Your task to perform on an android device: turn off airplane mode Image 0: 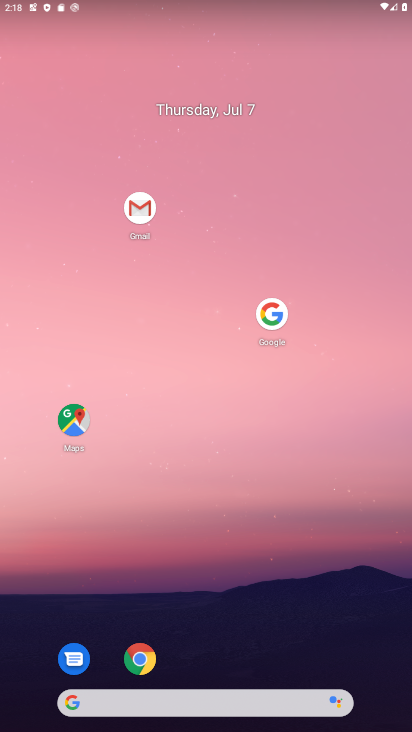
Step 0: drag from (276, 566) to (275, 152)
Your task to perform on an android device: turn off airplane mode Image 1: 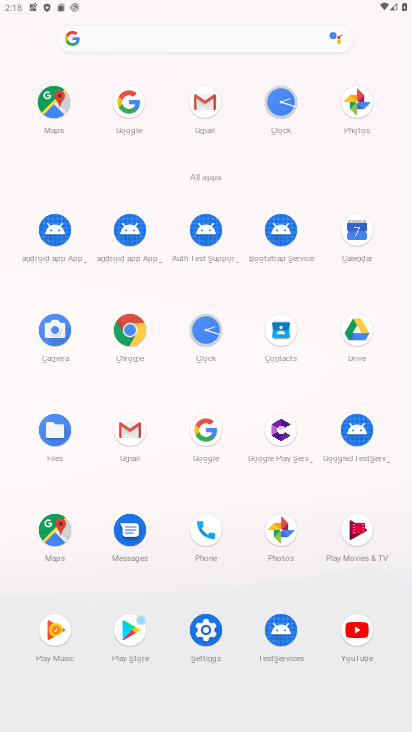
Step 1: click (211, 636)
Your task to perform on an android device: turn off airplane mode Image 2: 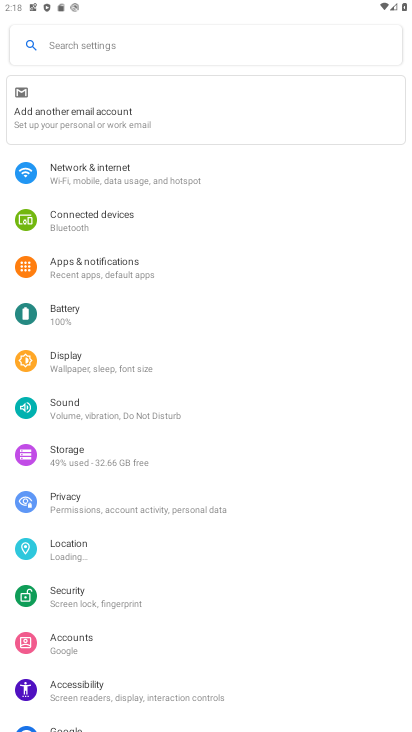
Step 2: click (192, 166)
Your task to perform on an android device: turn off airplane mode Image 3: 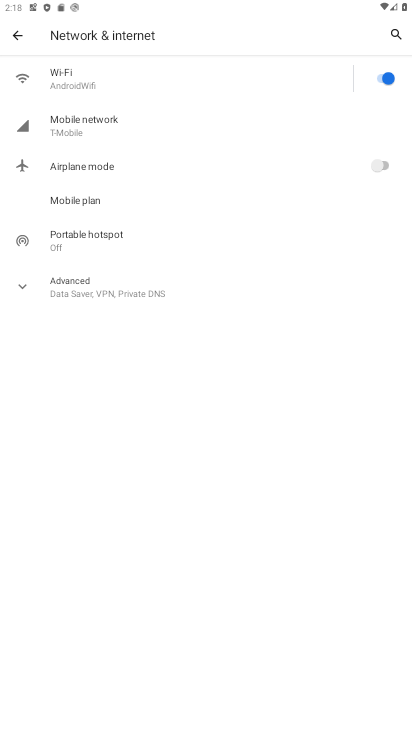
Step 3: task complete